Your task to perform on an android device: set an alarm Image 0: 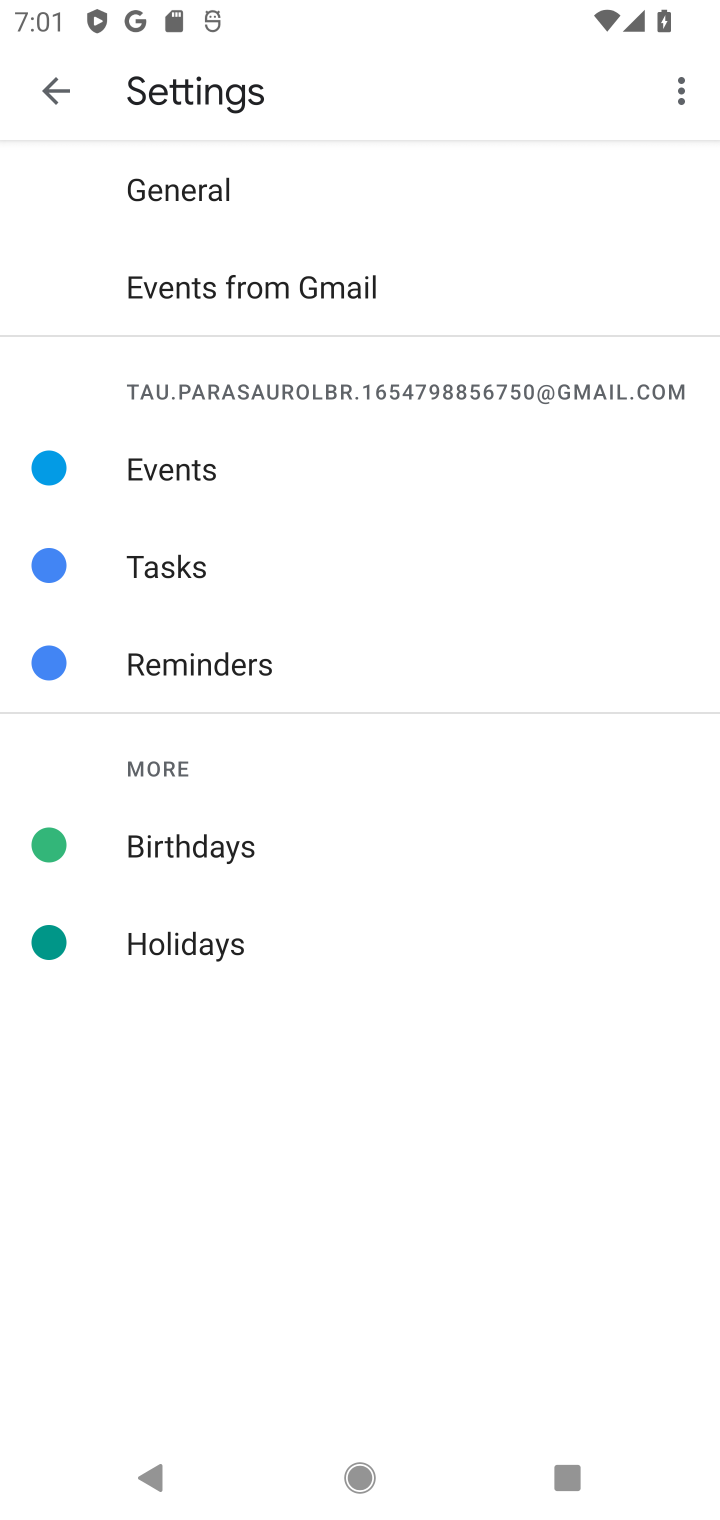
Step 0: press home button
Your task to perform on an android device: set an alarm Image 1: 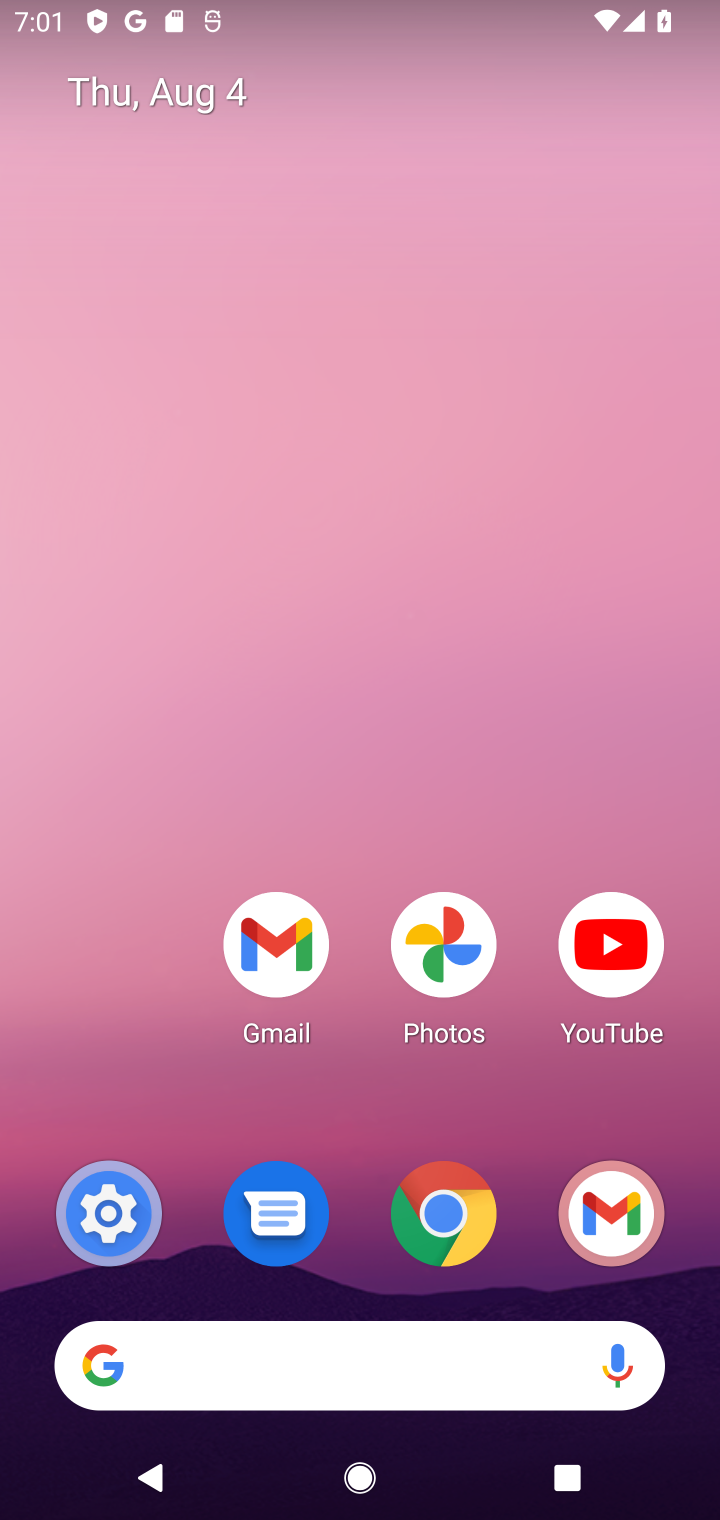
Step 1: drag from (359, 1099) to (364, 183)
Your task to perform on an android device: set an alarm Image 2: 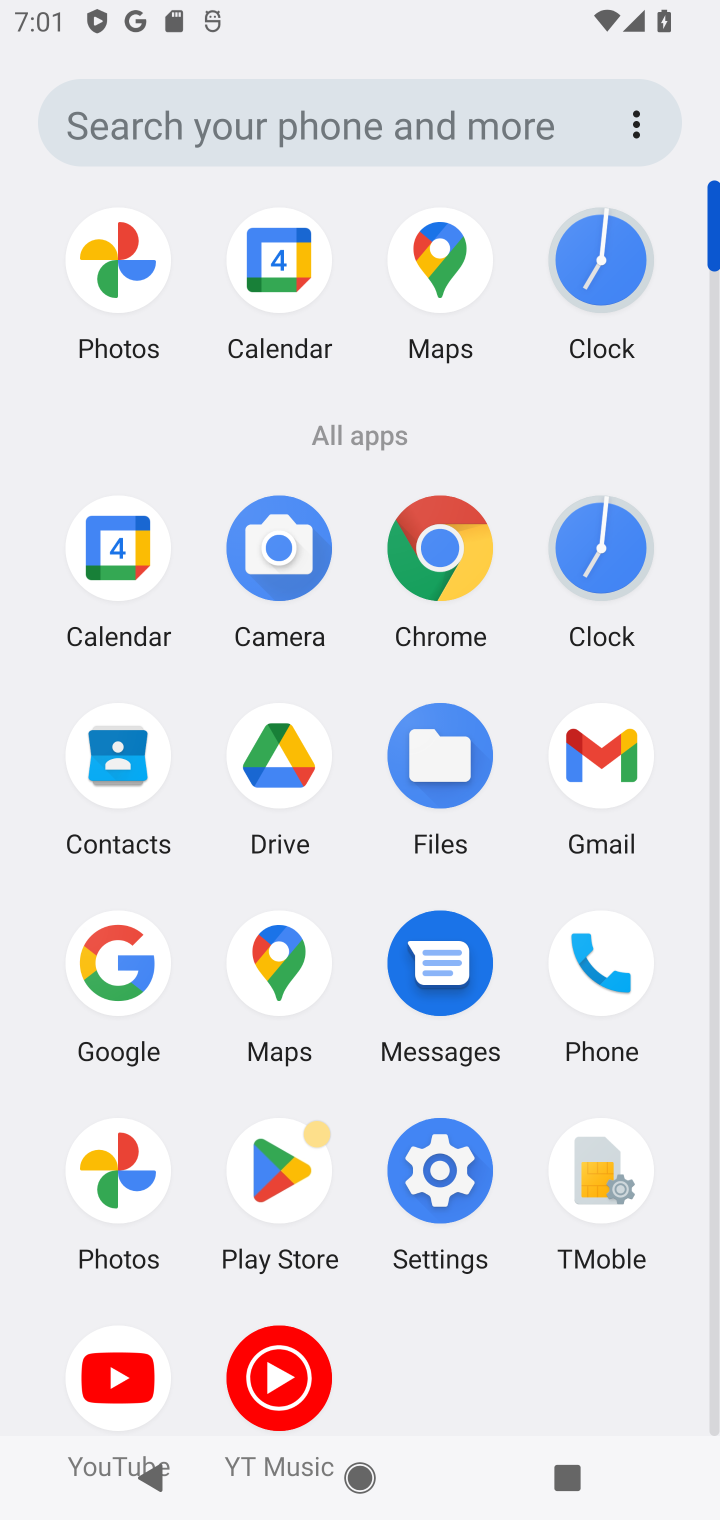
Step 2: click (605, 538)
Your task to perform on an android device: set an alarm Image 3: 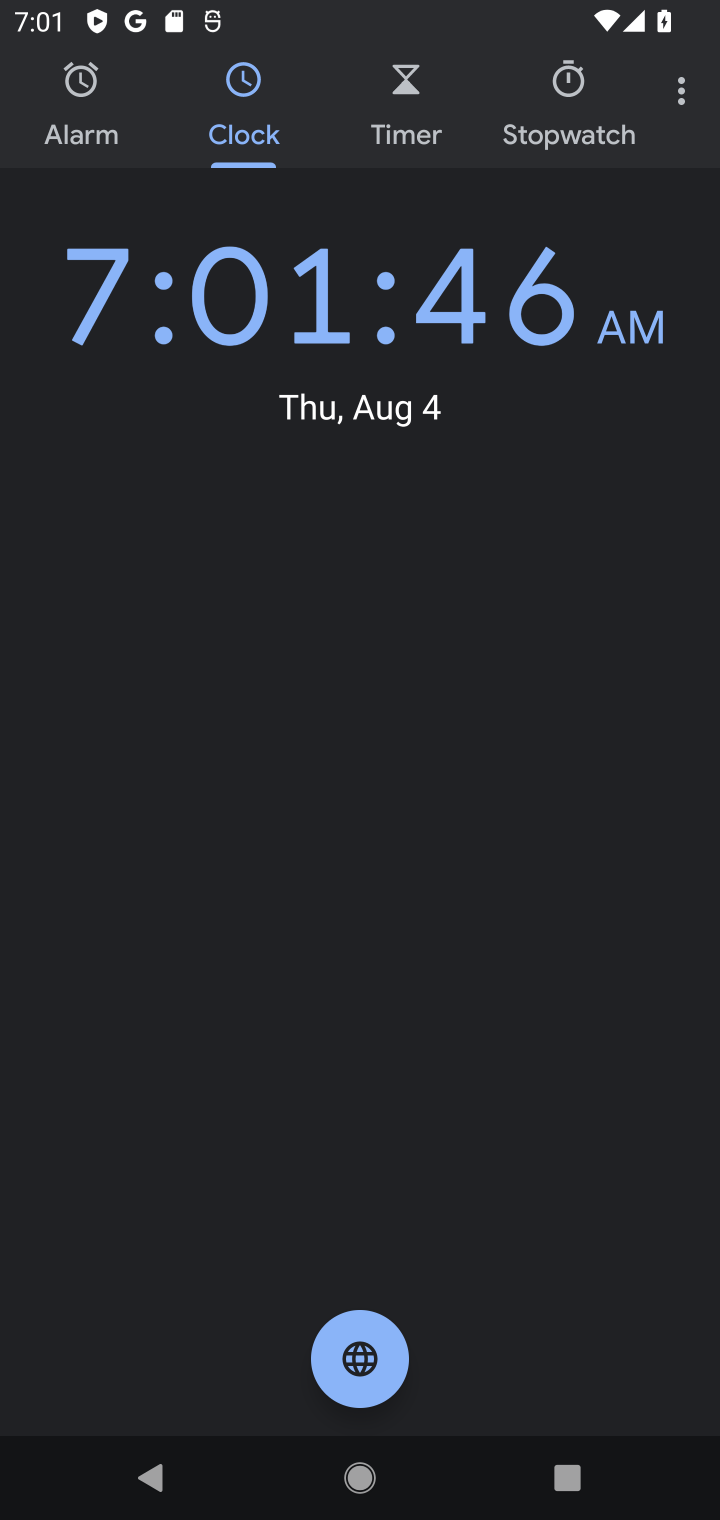
Step 3: click (84, 136)
Your task to perform on an android device: set an alarm Image 4: 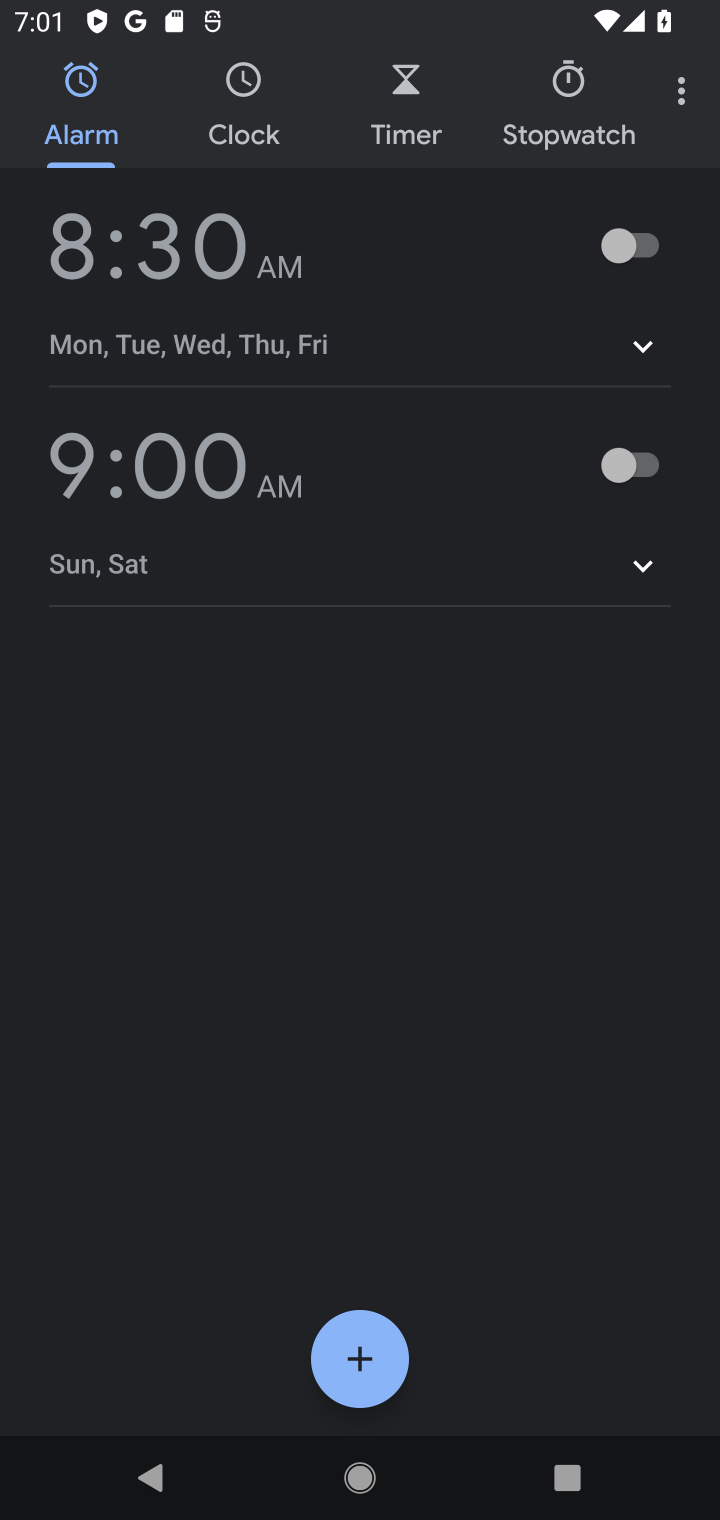
Step 4: click (372, 1383)
Your task to perform on an android device: set an alarm Image 5: 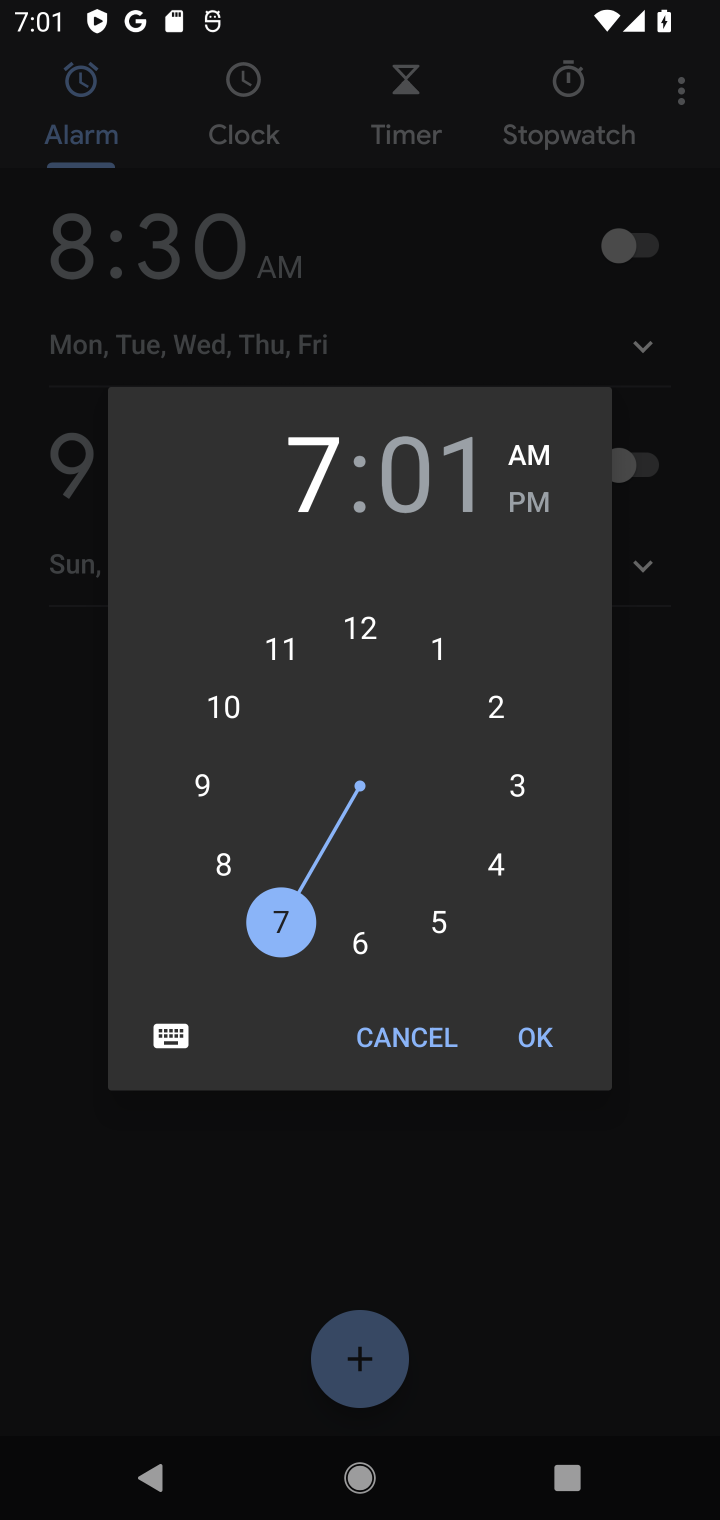
Step 5: click (532, 1044)
Your task to perform on an android device: set an alarm Image 6: 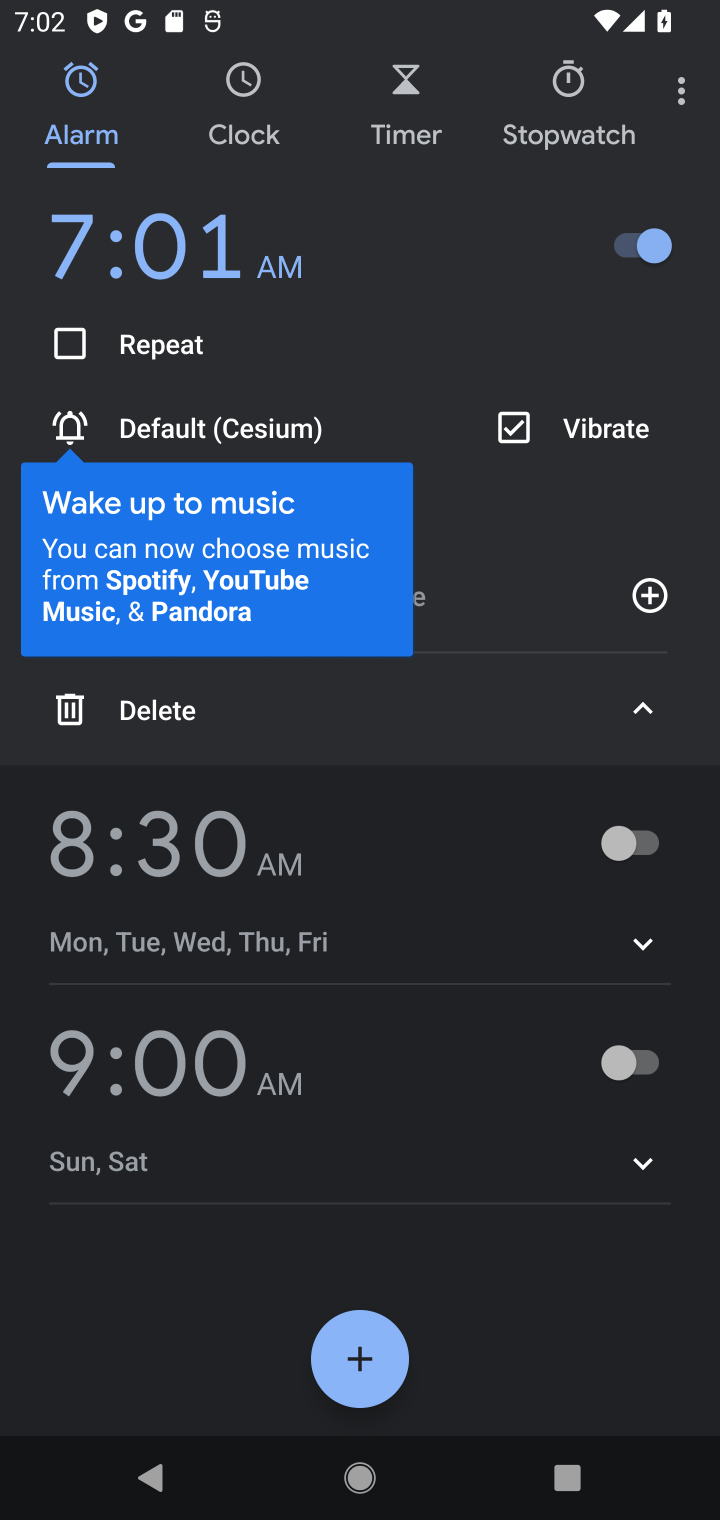
Step 6: click (660, 704)
Your task to perform on an android device: set an alarm Image 7: 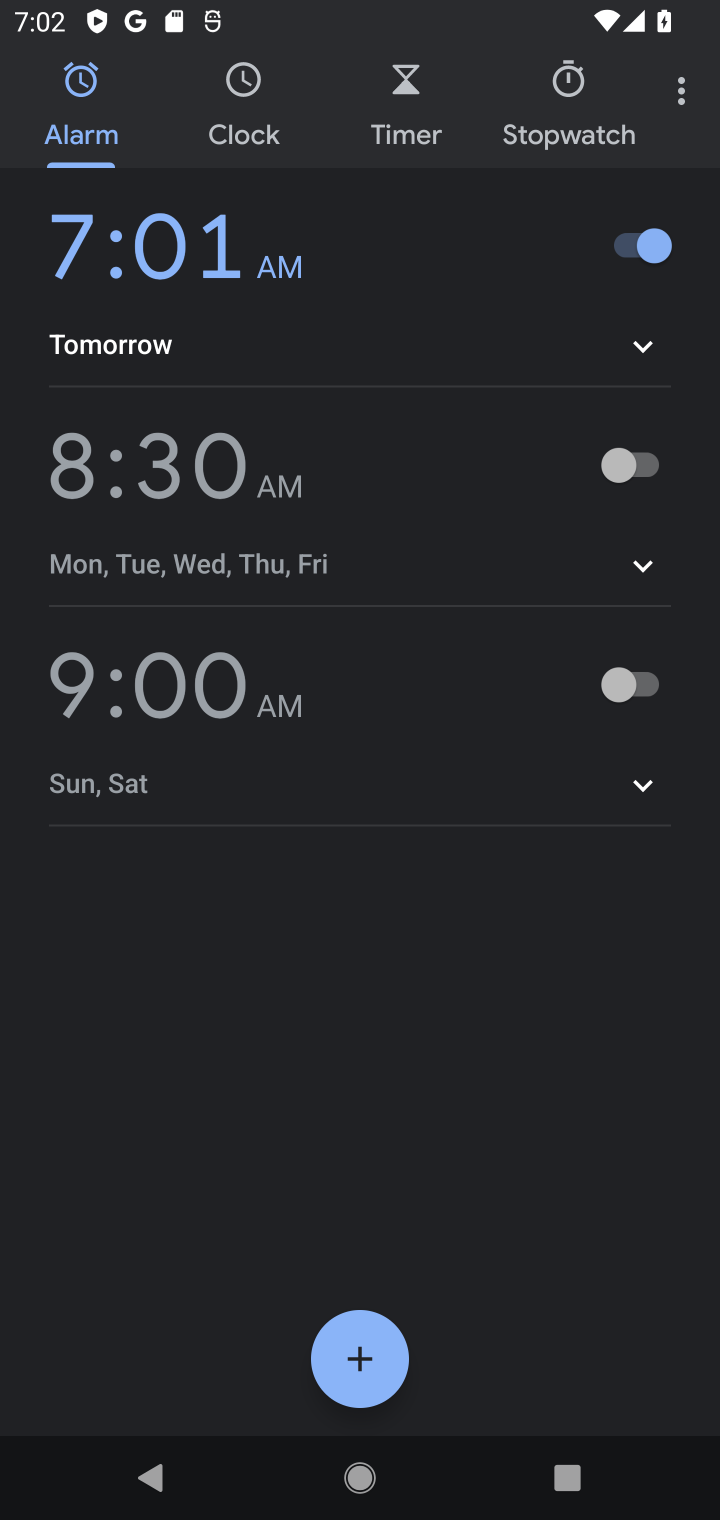
Step 7: task complete